Your task to perform on an android device: Open the stopwatch Image 0: 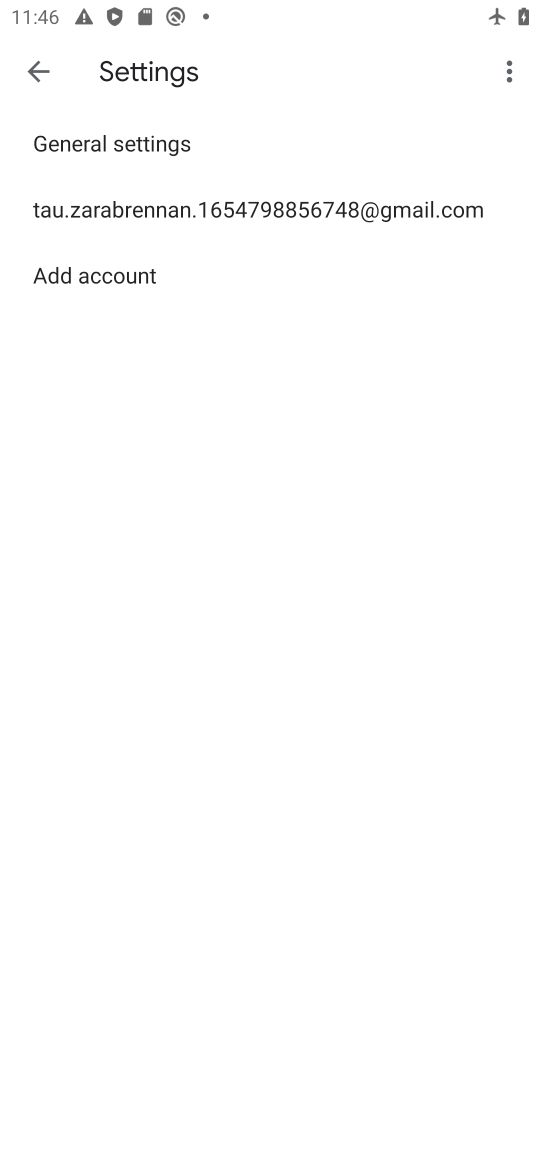
Step 0: press home button
Your task to perform on an android device: Open the stopwatch Image 1: 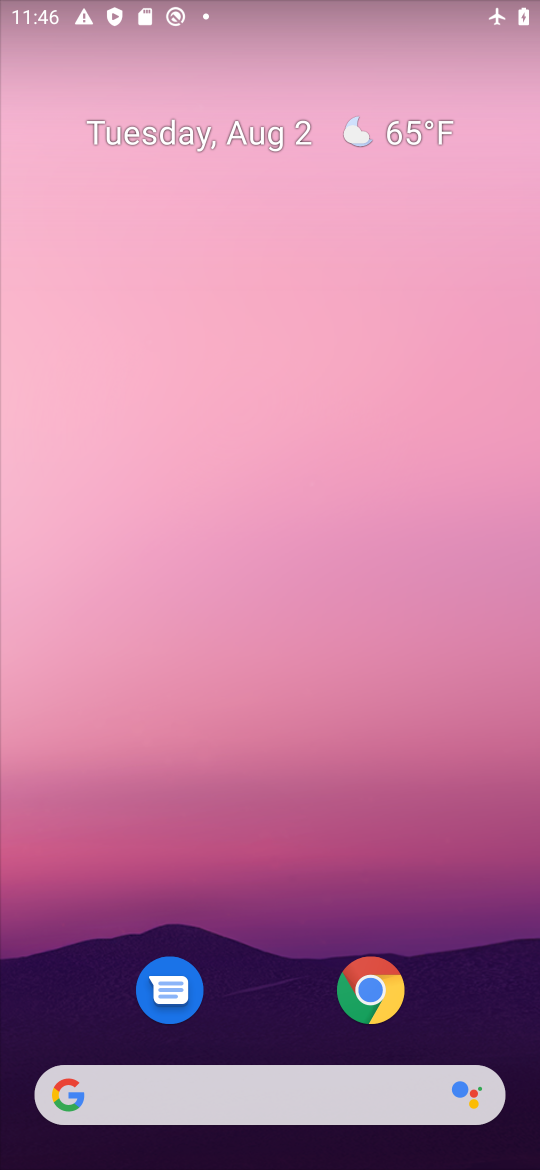
Step 1: drag from (285, 948) to (372, 33)
Your task to perform on an android device: Open the stopwatch Image 2: 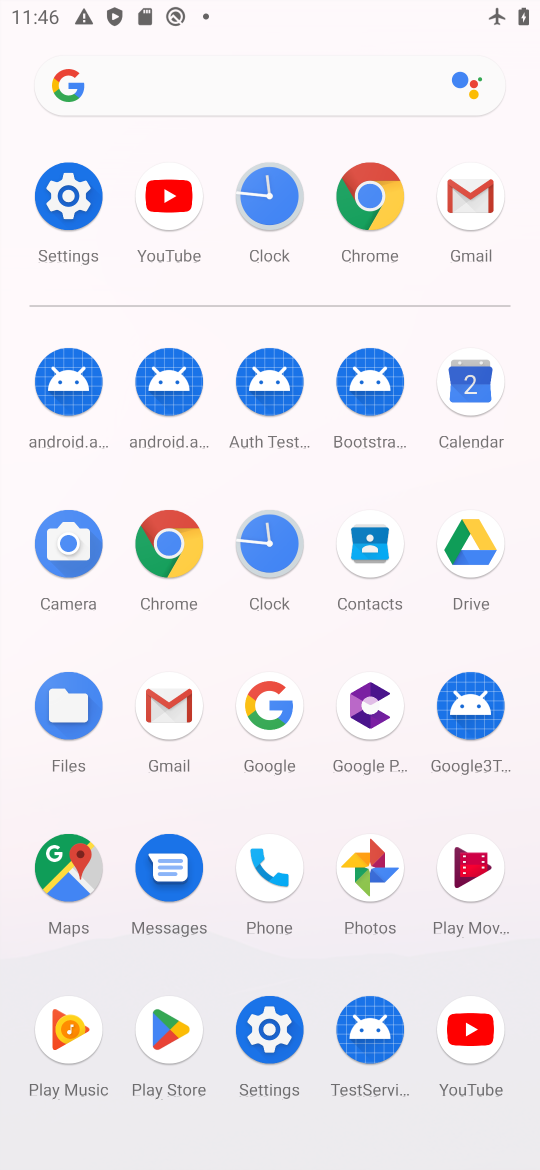
Step 2: click (261, 558)
Your task to perform on an android device: Open the stopwatch Image 3: 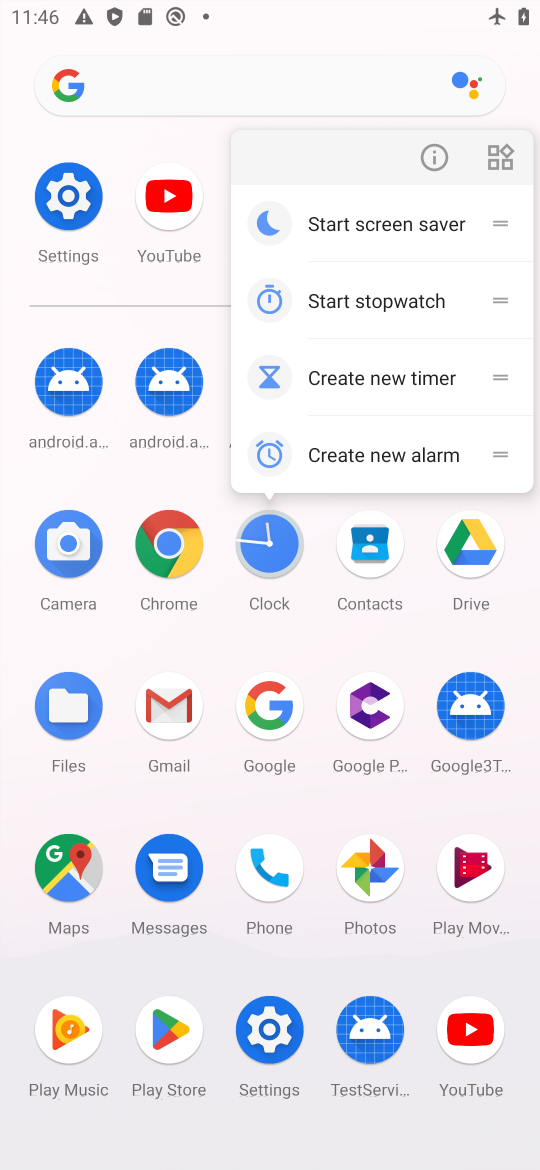
Step 3: click (309, 544)
Your task to perform on an android device: Open the stopwatch Image 4: 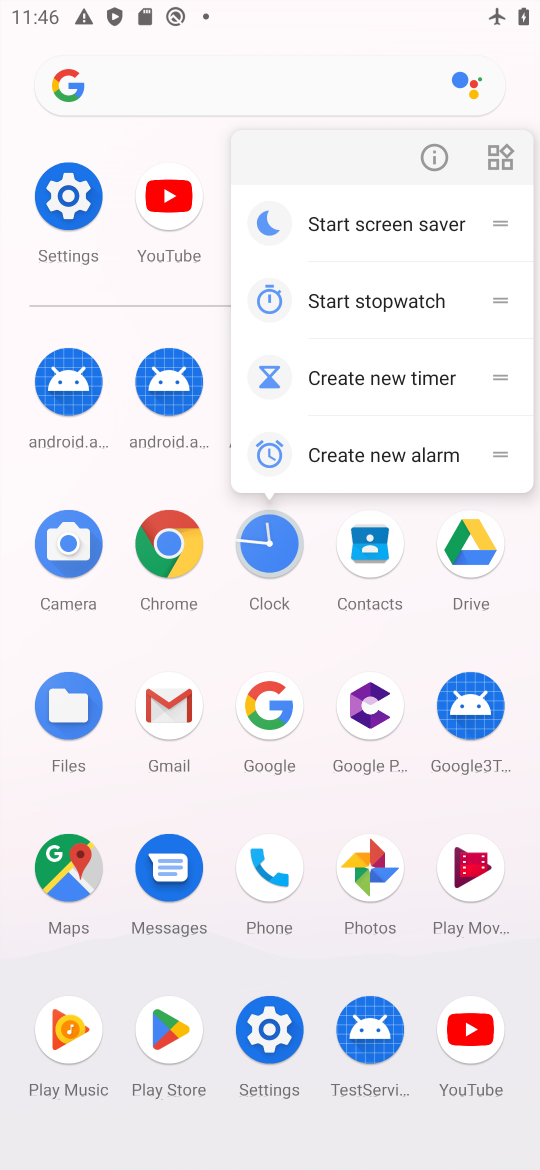
Step 4: click (235, 566)
Your task to perform on an android device: Open the stopwatch Image 5: 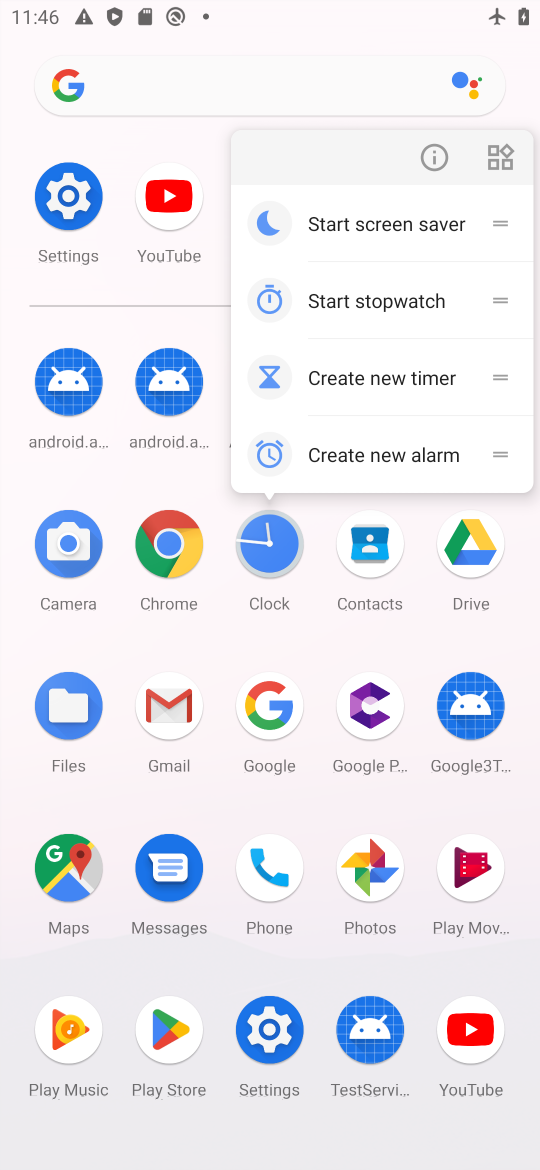
Step 5: click (276, 573)
Your task to perform on an android device: Open the stopwatch Image 6: 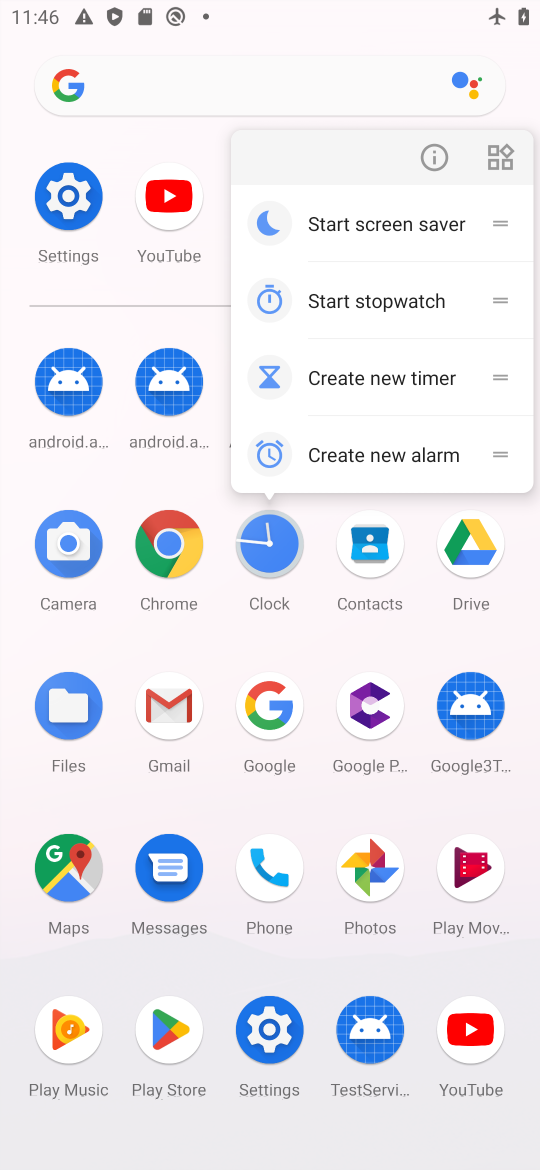
Step 6: click (262, 587)
Your task to perform on an android device: Open the stopwatch Image 7: 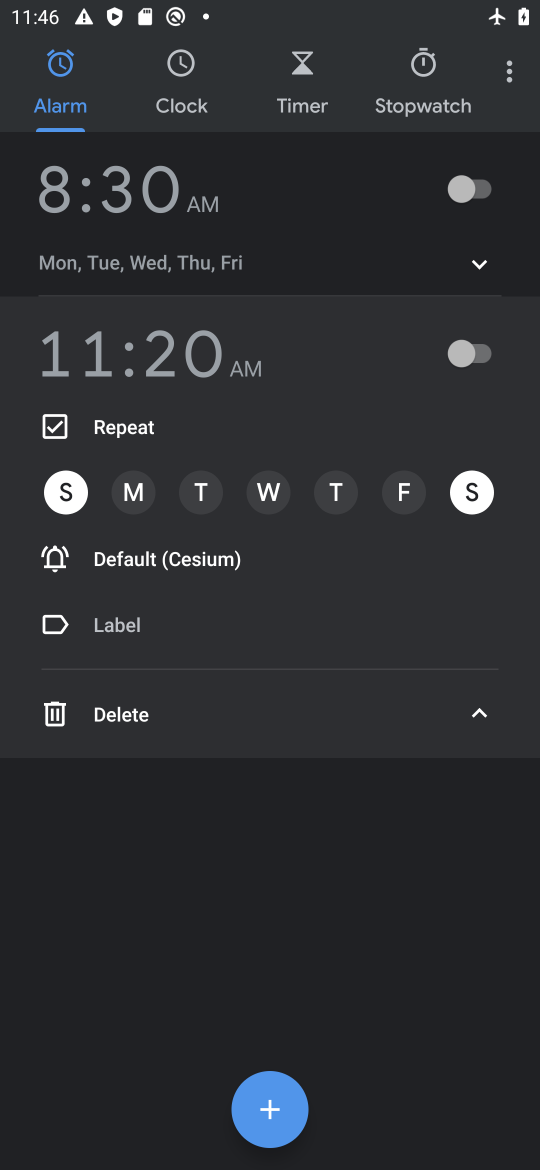
Step 7: click (409, 67)
Your task to perform on an android device: Open the stopwatch Image 8: 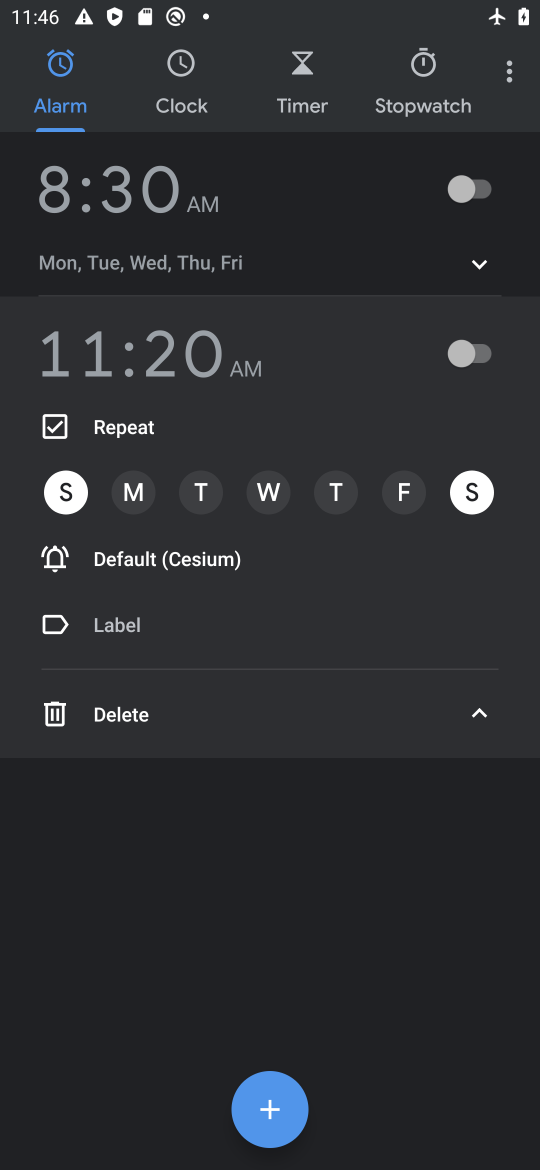
Step 8: click (427, 123)
Your task to perform on an android device: Open the stopwatch Image 9: 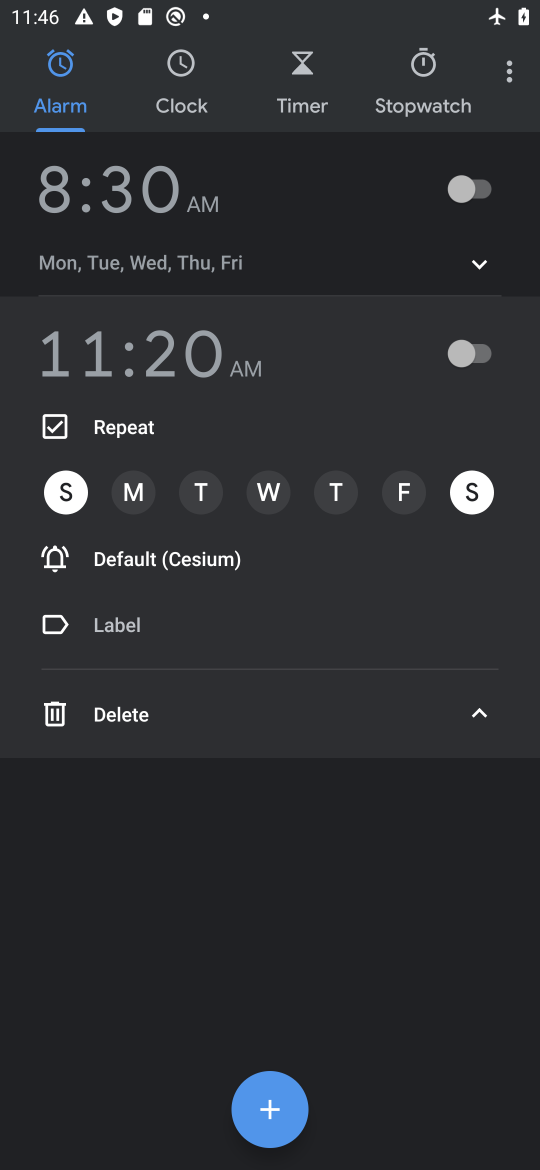
Step 9: click (440, 92)
Your task to perform on an android device: Open the stopwatch Image 10: 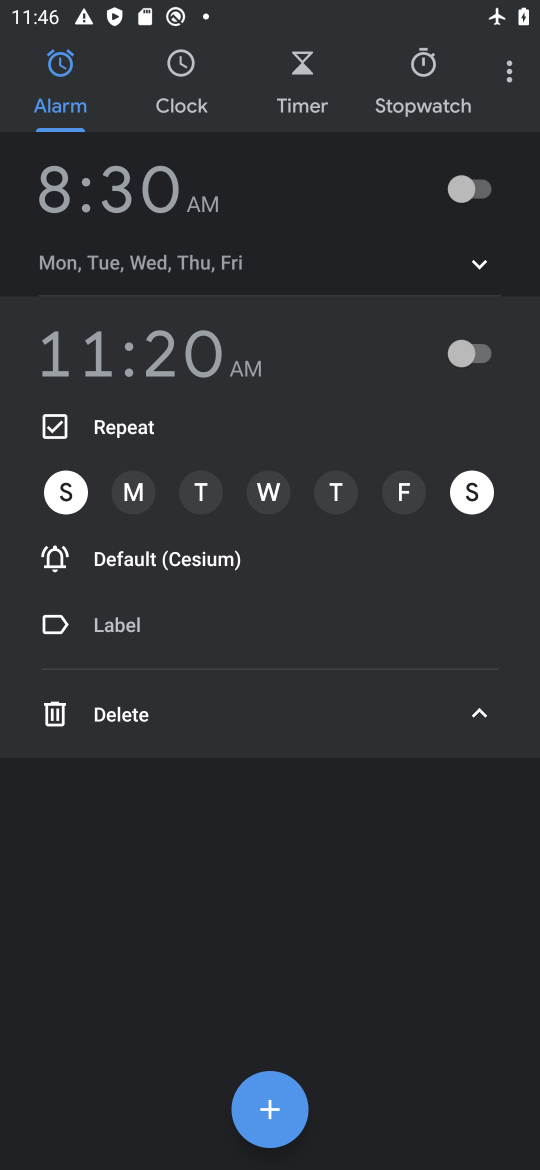
Step 10: click (440, 92)
Your task to perform on an android device: Open the stopwatch Image 11: 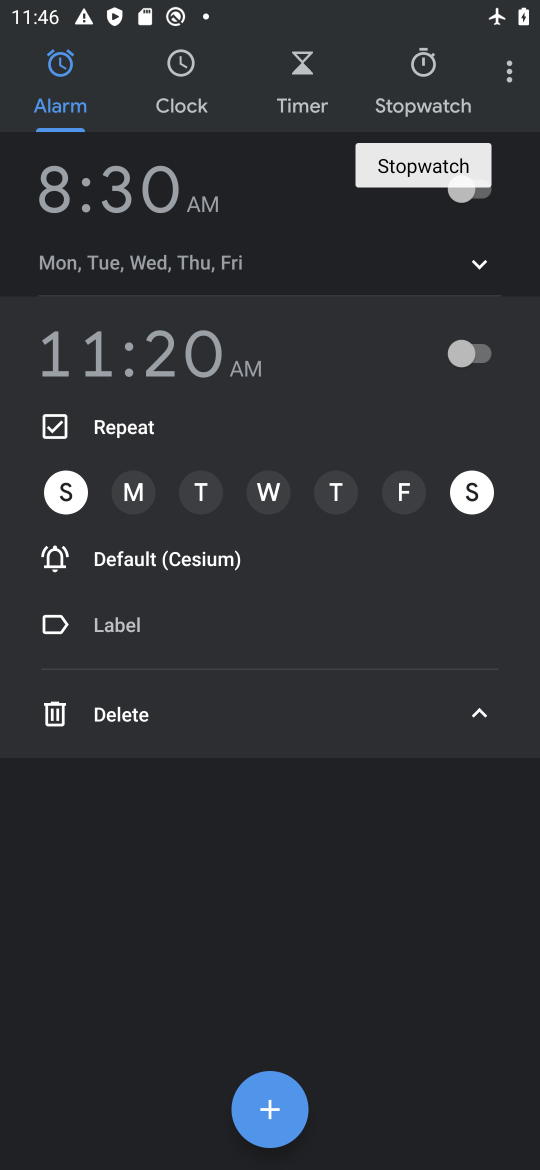
Step 11: click (442, 92)
Your task to perform on an android device: Open the stopwatch Image 12: 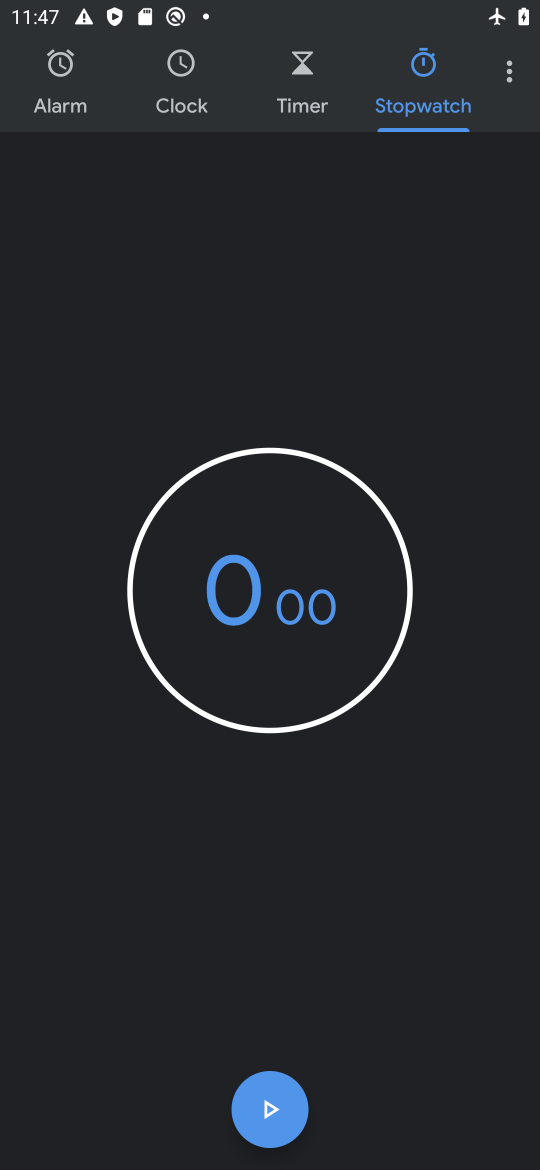
Step 12: click (282, 1090)
Your task to perform on an android device: Open the stopwatch Image 13: 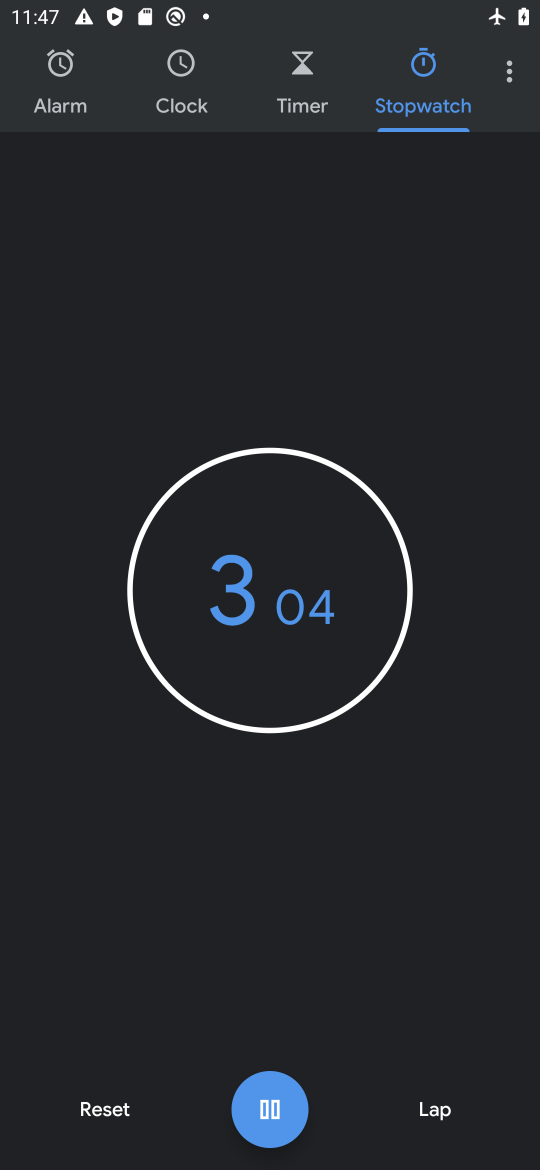
Step 13: task complete